Your task to perform on an android device: Open battery settings Image 0: 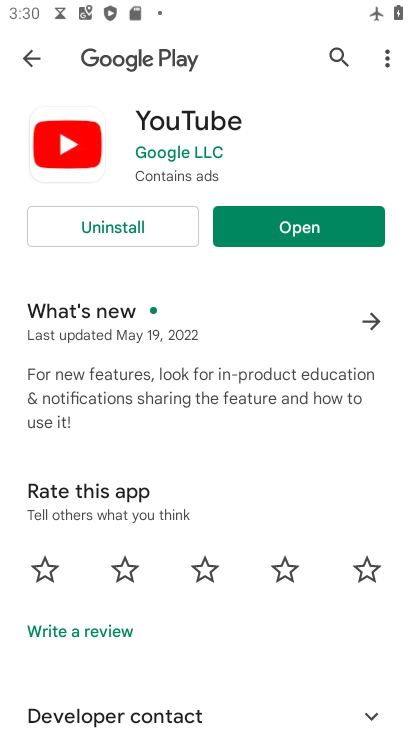
Step 0: press home button
Your task to perform on an android device: Open battery settings Image 1: 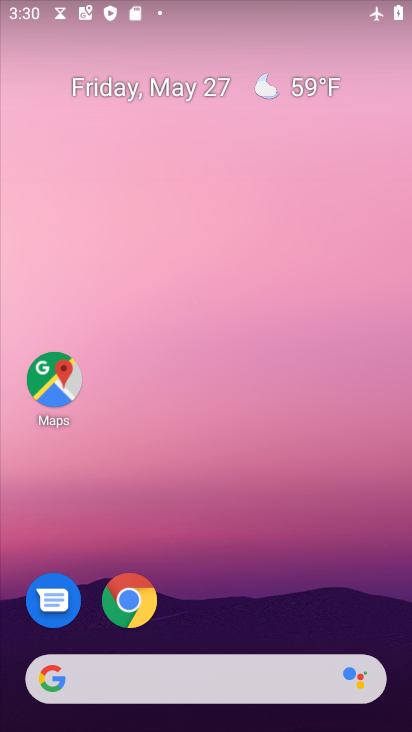
Step 1: drag from (250, 597) to (199, 249)
Your task to perform on an android device: Open battery settings Image 2: 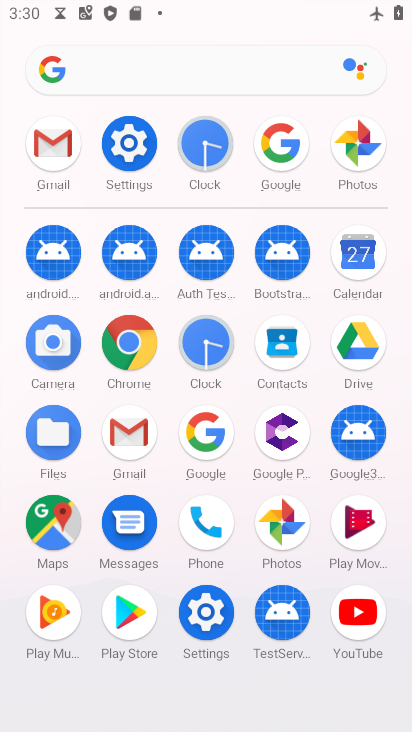
Step 2: click (204, 613)
Your task to perform on an android device: Open battery settings Image 3: 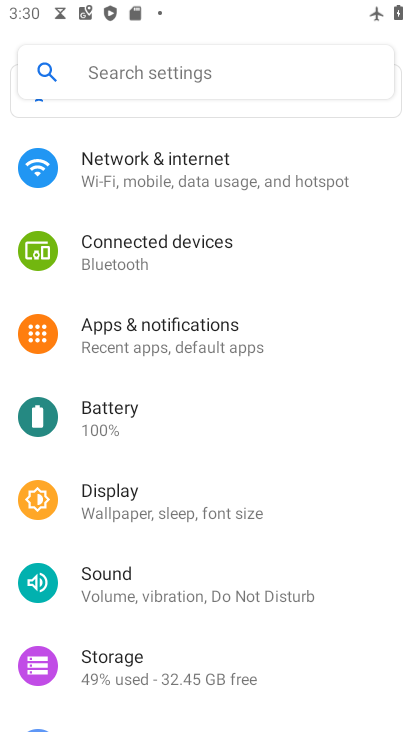
Step 3: click (128, 420)
Your task to perform on an android device: Open battery settings Image 4: 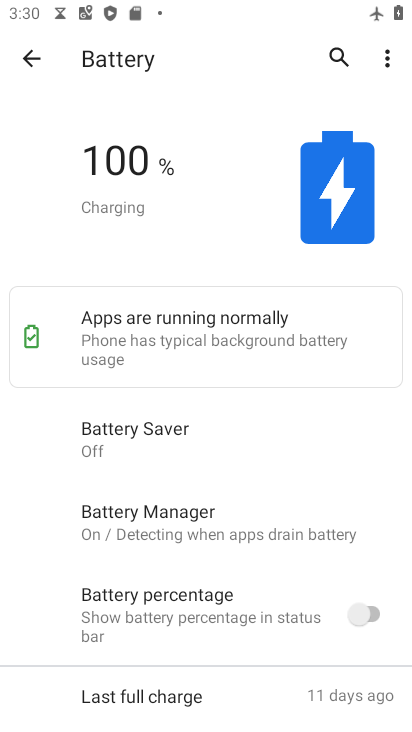
Step 4: task complete